Your task to perform on an android device: toggle show notifications on the lock screen Image 0: 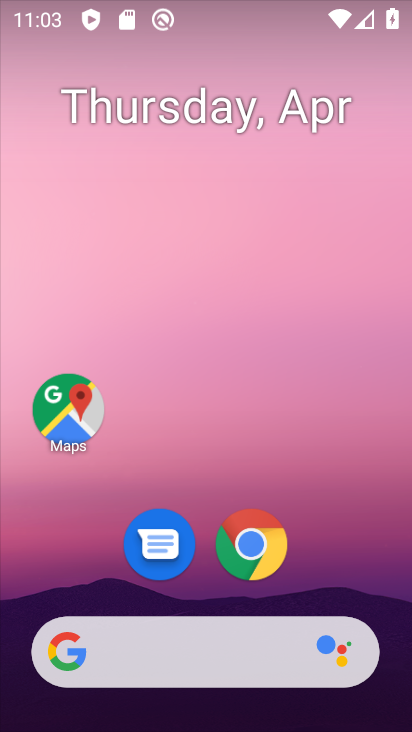
Step 0: drag from (223, 296) to (307, 173)
Your task to perform on an android device: toggle show notifications on the lock screen Image 1: 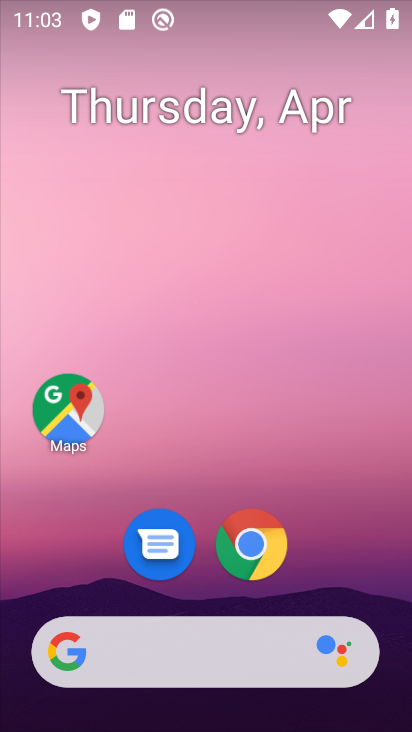
Step 1: drag from (164, 392) to (320, 128)
Your task to perform on an android device: toggle show notifications on the lock screen Image 2: 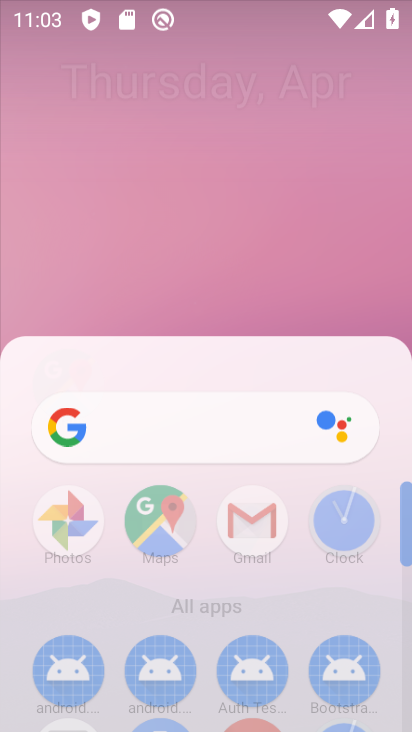
Step 2: click (362, 81)
Your task to perform on an android device: toggle show notifications on the lock screen Image 3: 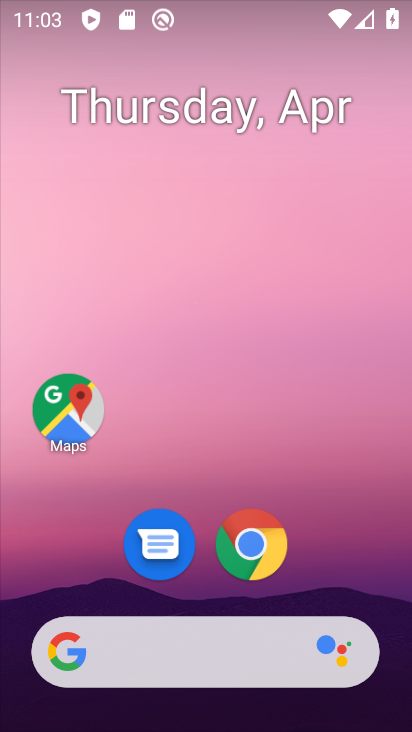
Step 3: drag from (80, 501) to (293, 142)
Your task to perform on an android device: toggle show notifications on the lock screen Image 4: 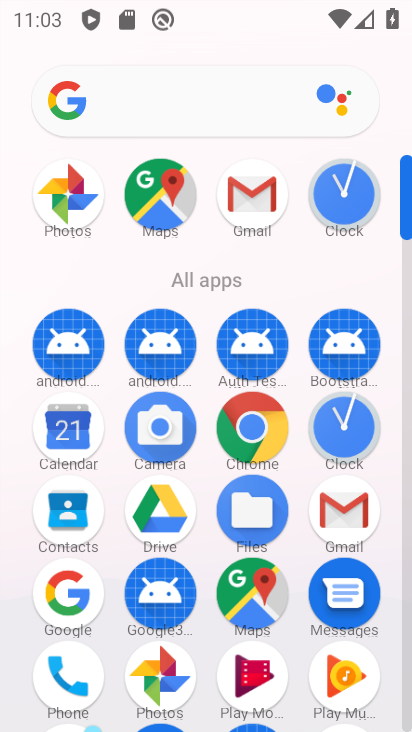
Step 4: drag from (169, 599) to (336, 193)
Your task to perform on an android device: toggle show notifications on the lock screen Image 5: 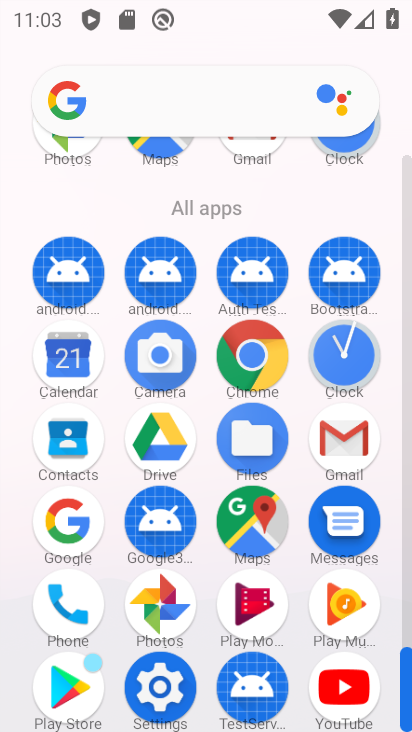
Step 5: click (156, 669)
Your task to perform on an android device: toggle show notifications on the lock screen Image 6: 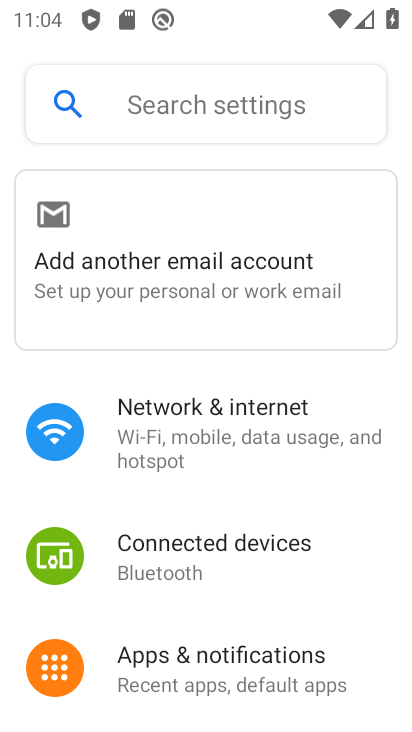
Step 6: click (228, 662)
Your task to perform on an android device: toggle show notifications on the lock screen Image 7: 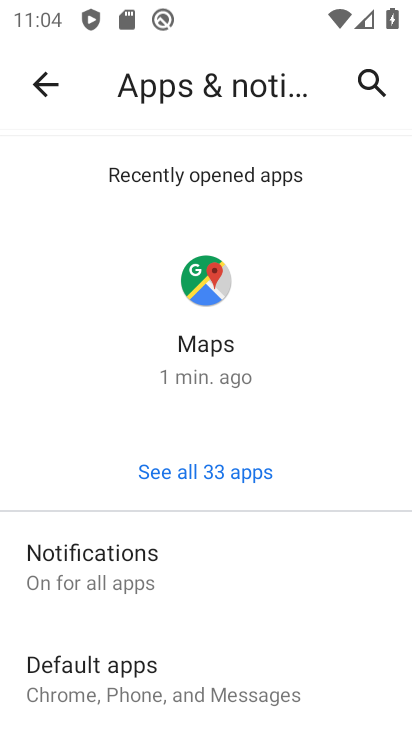
Step 7: click (212, 572)
Your task to perform on an android device: toggle show notifications on the lock screen Image 8: 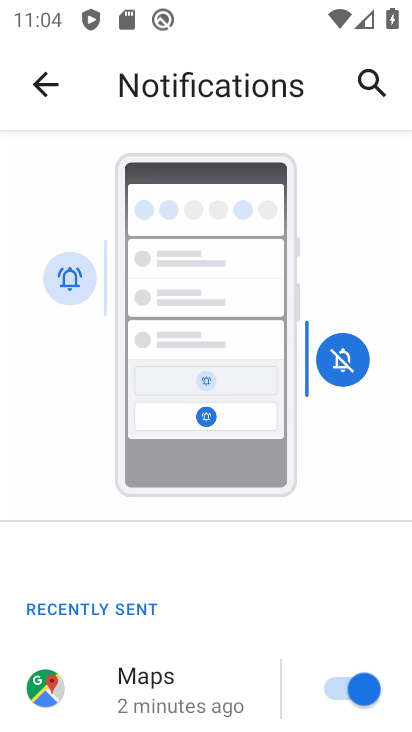
Step 8: drag from (89, 689) to (394, 175)
Your task to perform on an android device: toggle show notifications on the lock screen Image 9: 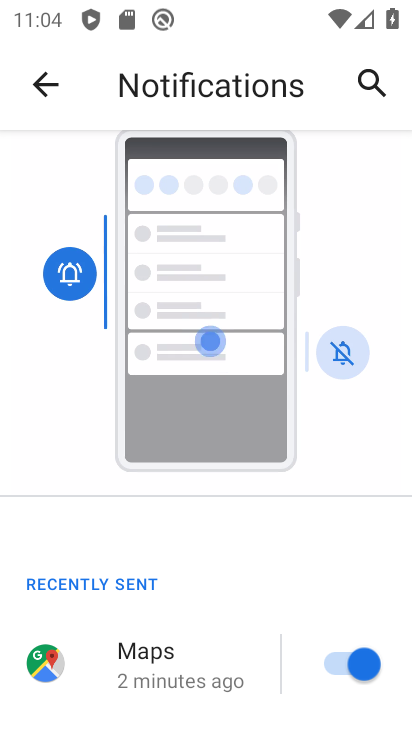
Step 9: drag from (280, 470) to (398, 646)
Your task to perform on an android device: toggle show notifications on the lock screen Image 10: 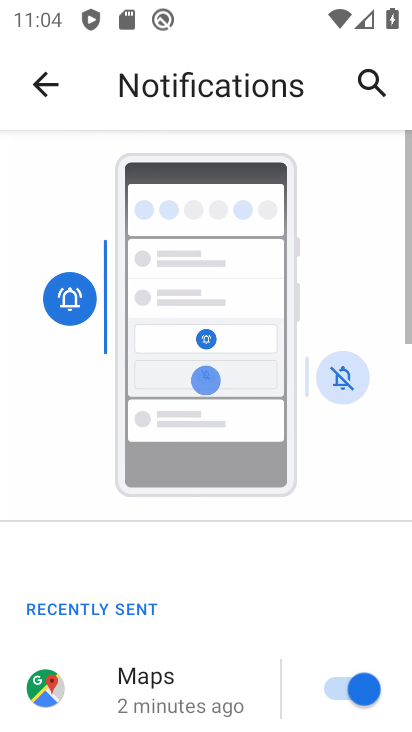
Step 10: drag from (176, 630) to (400, 480)
Your task to perform on an android device: toggle show notifications on the lock screen Image 11: 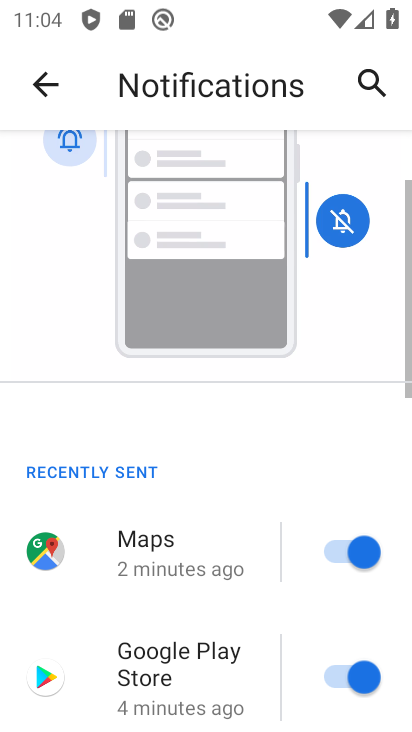
Step 11: drag from (125, 643) to (258, 299)
Your task to perform on an android device: toggle show notifications on the lock screen Image 12: 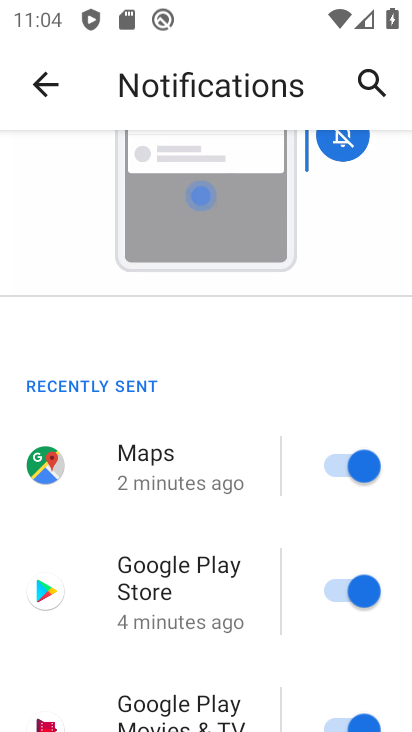
Step 12: drag from (110, 582) to (280, 291)
Your task to perform on an android device: toggle show notifications on the lock screen Image 13: 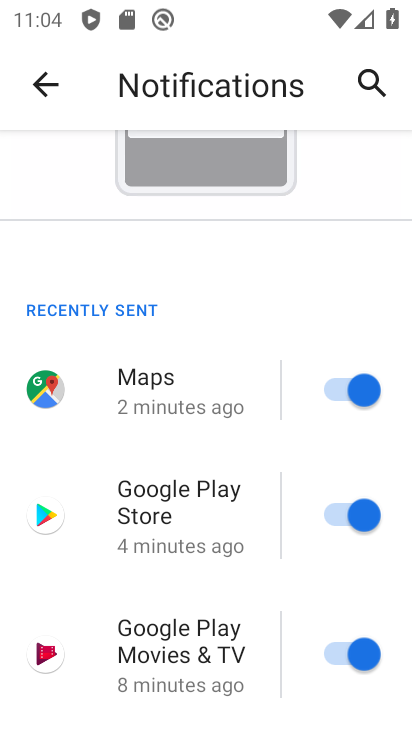
Step 13: drag from (103, 642) to (310, 297)
Your task to perform on an android device: toggle show notifications on the lock screen Image 14: 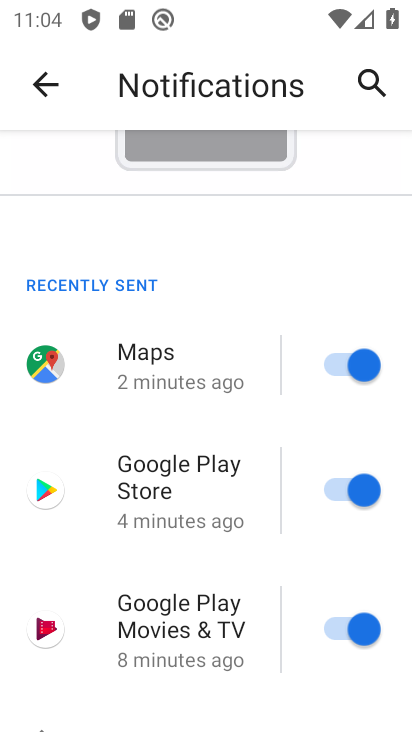
Step 14: drag from (157, 638) to (393, 204)
Your task to perform on an android device: toggle show notifications on the lock screen Image 15: 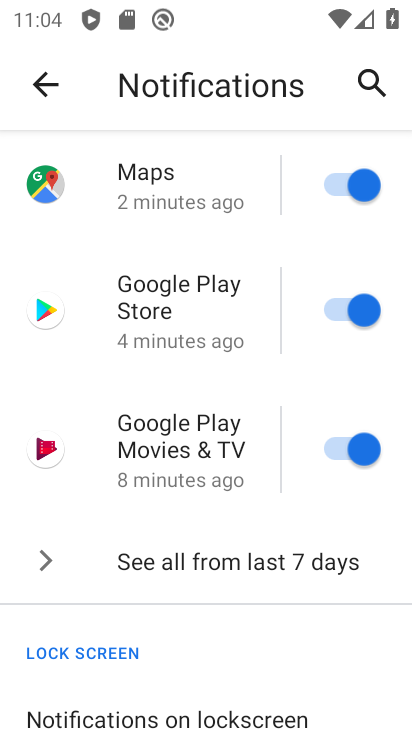
Step 15: drag from (130, 647) to (290, 256)
Your task to perform on an android device: toggle show notifications on the lock screen Image 16: 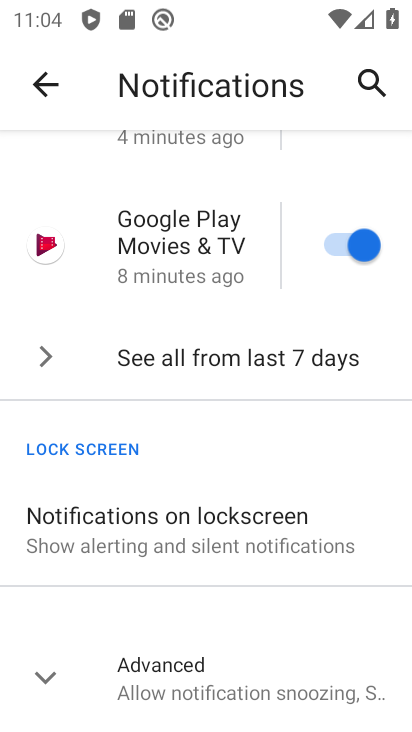
Step 16: click (269, 542)
Your task to perform on an android device: toggle show notifications on the lock screen Image 17: 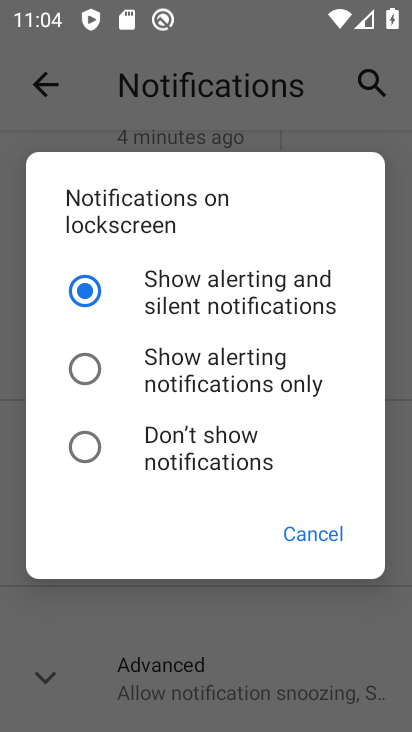
Step 17: click (86, 441)
Your task to perform on an android device: toggle show notifications on the lock screen Image 18: 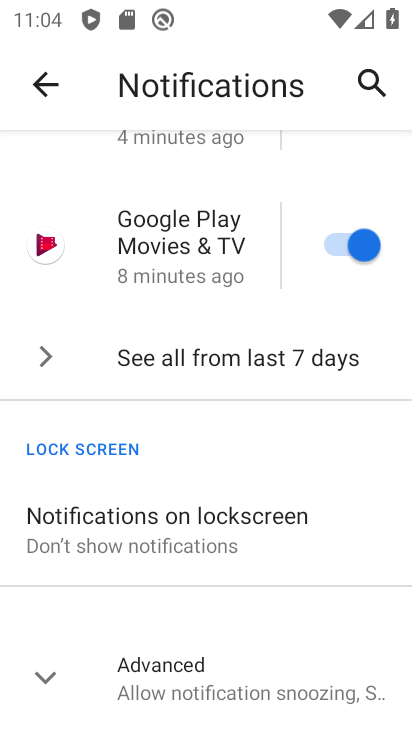
Step 18: task complete